Your task to perform on an android device: Open Amazon Image 0: 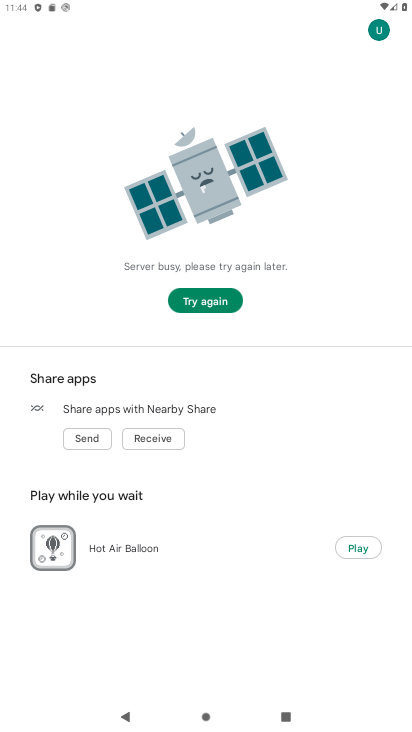
Step 0: press home button
Your task to perform on an android device: Open Amazon Image 1: 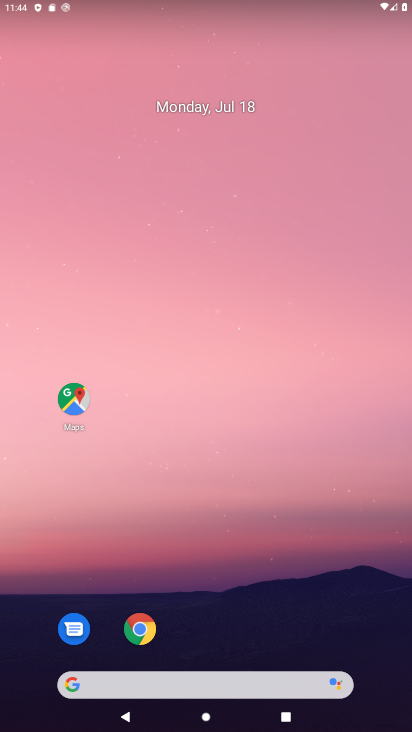
Step 1: click (141, 624)
Your task to perform on an android device: Open Amazon Image 2: 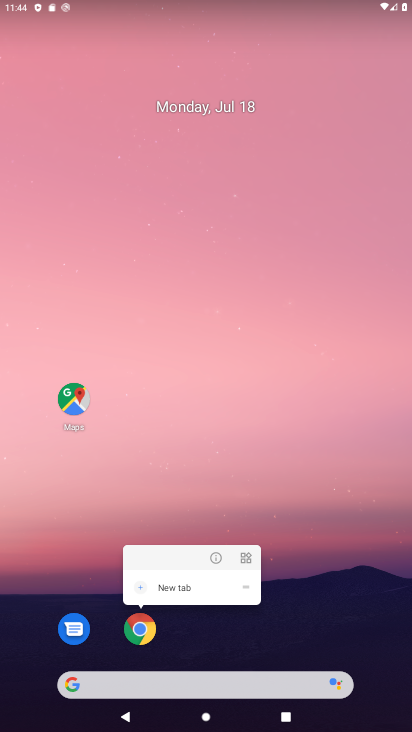
Step 2: click (149, 632)
Your task to perform on an android device: Open Amazon Image 3: 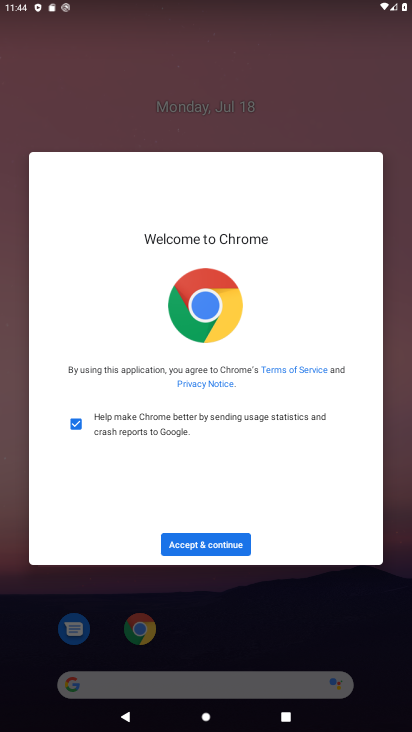
Step 3: click (215, 538)
Your task to perform on an android device: Open Amazon Image 4: 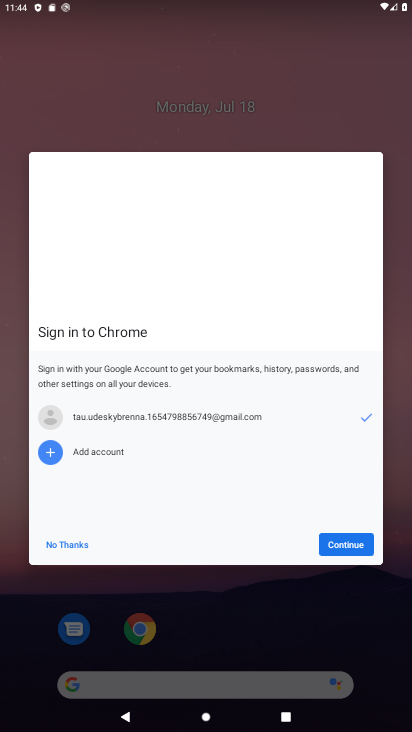
Step 4: click (357, 546)
Your task to perform on an android device: Open Amazon Image 5: 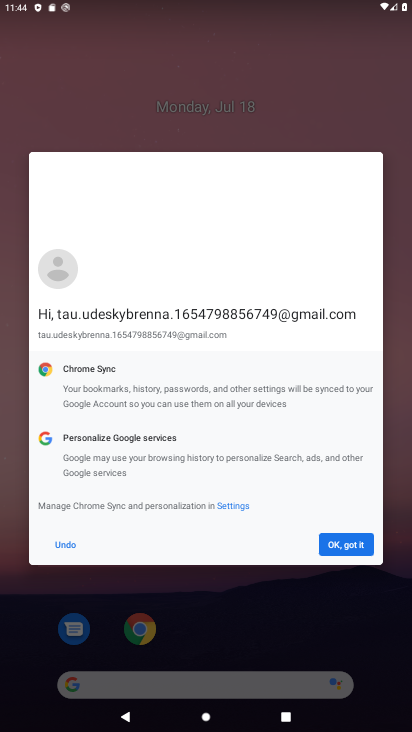
Step 5: click (348, 548)
Your task to perform on an android device: Open Amazon Image 6: 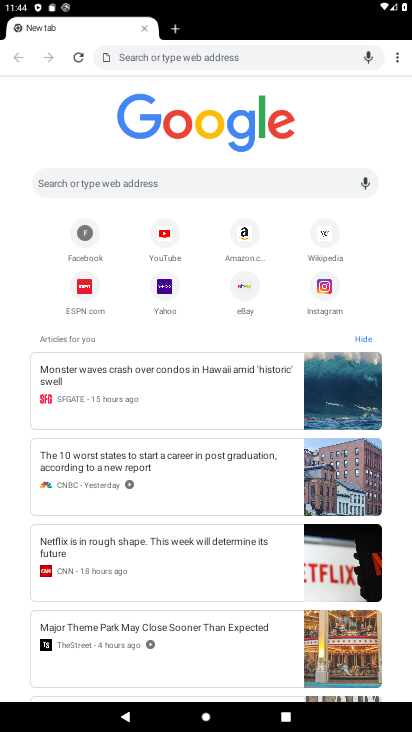
Step 6: click (242, 233)
Your task to perform on an android device: Open Amazon Image 7: 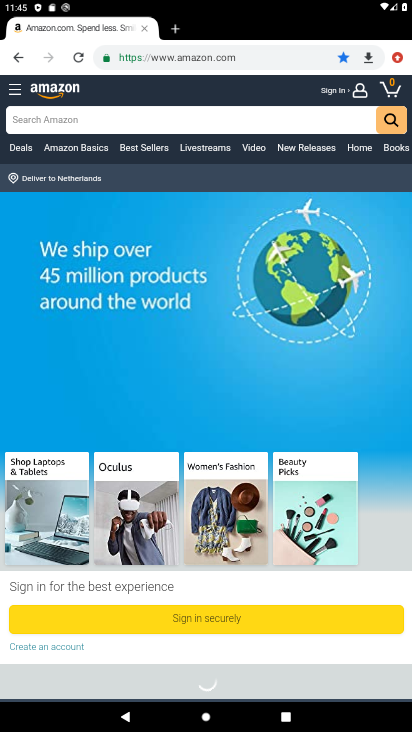
Step 7: task complete